Your task to perform on an android device: stop showing notifications on the lock screen Image 0: 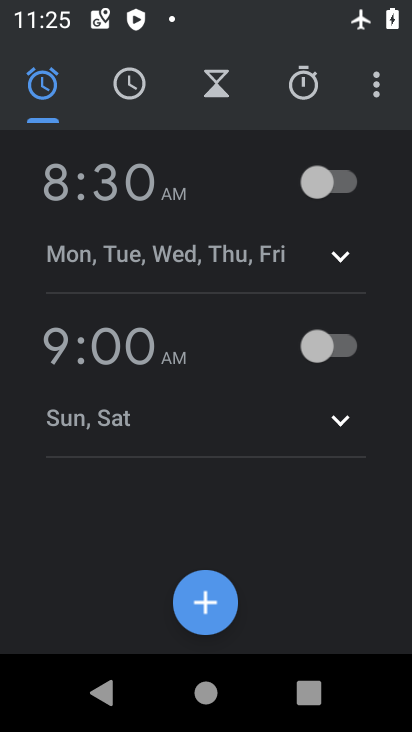
Step 0: press home button
Your task to perform on an android device: stop showing notifications on the lock screen Image 1: 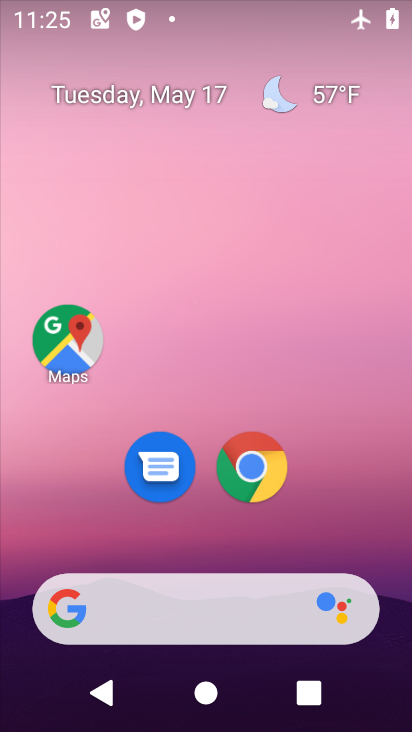
Step 1: drag from (261, 648) to (264, 239)
Your task to perform on an android device: stop showing notifications on the lock screen Image 2: 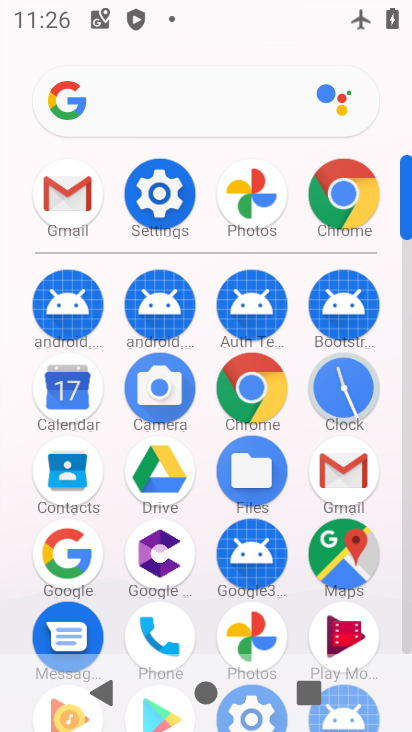
Step 2: click (162, 208)
Your task to perform on an android device: stop showing notifications on the lock screen Image 3: 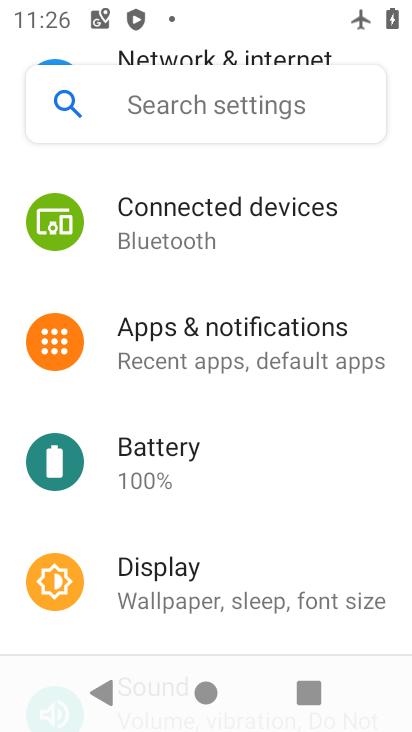
Step 3: click (200, 114)
Your task to perform on an android device: stop showing notifications on the lock screen Image 4: 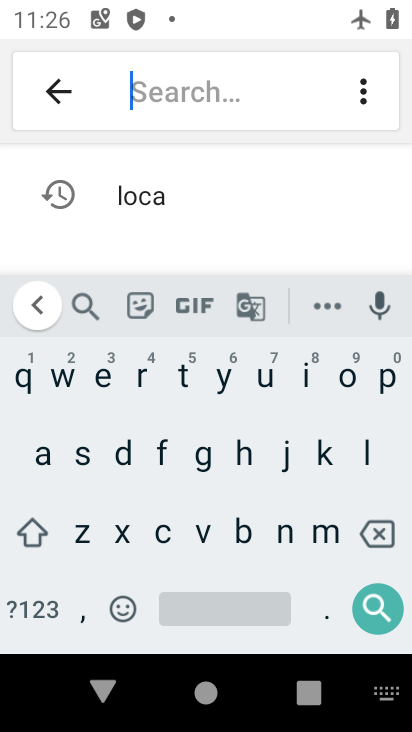
Step 4: click (282, 531)
Your task to perform on an android device: stop showing notifications on the lock screen Image 5: 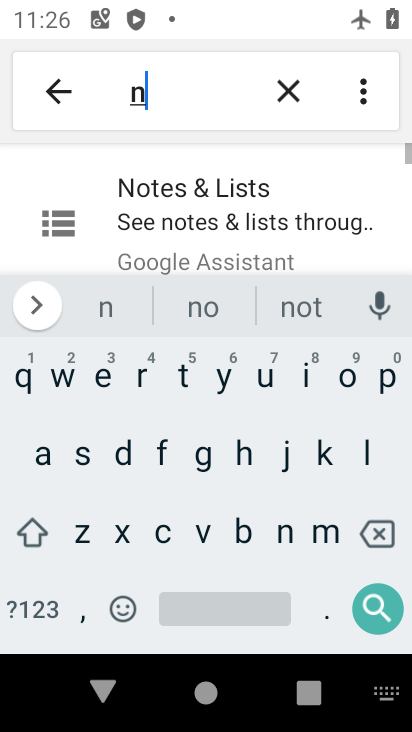
Step 5: click (336, 384)
Your task to perform on an android device: stop showing notifications on the lock screen Image 6: 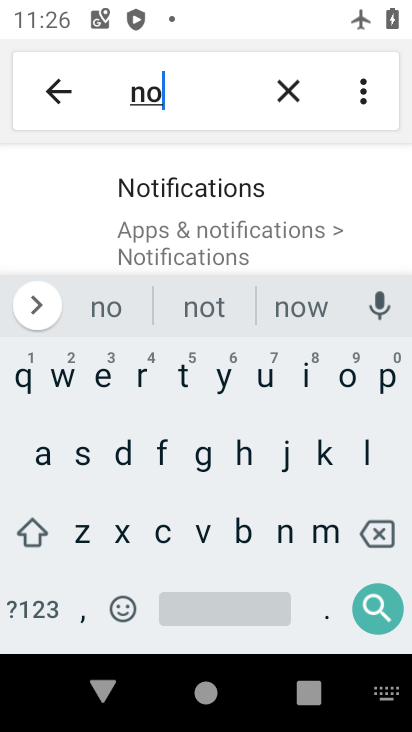
Step 6: click (277, 237)
Your task to perform on an android device: stop showing notifications on the lock screen Image 7: 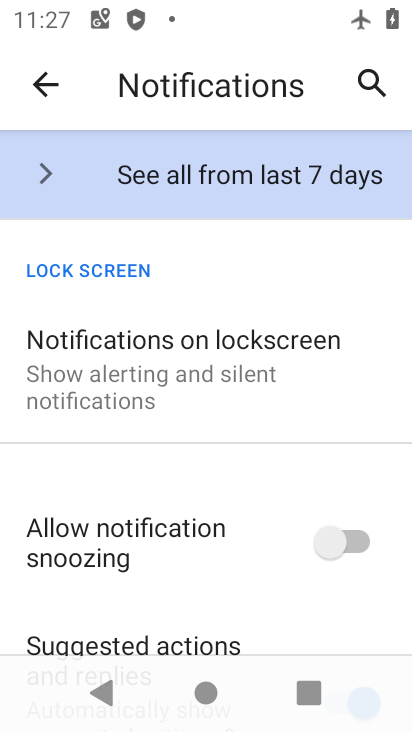
Step 7: click (163, 414)
Your task to perform on an android device: stop showing notifications on the lock screen Image 8: 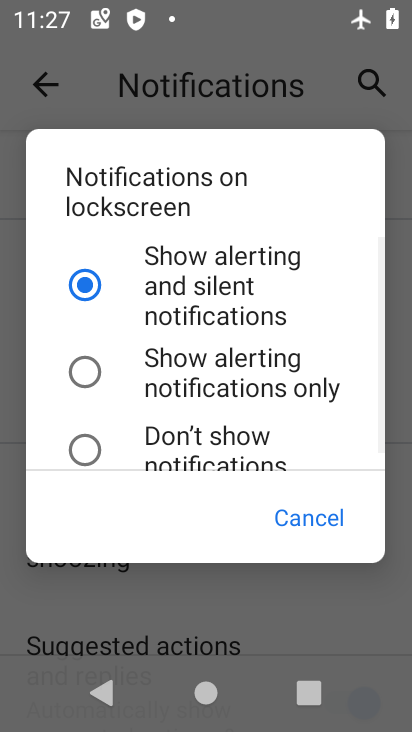
Step 8: click (178, 444)
Your task to perform on an android device: stop showing notifications on the lock screen Image 9: 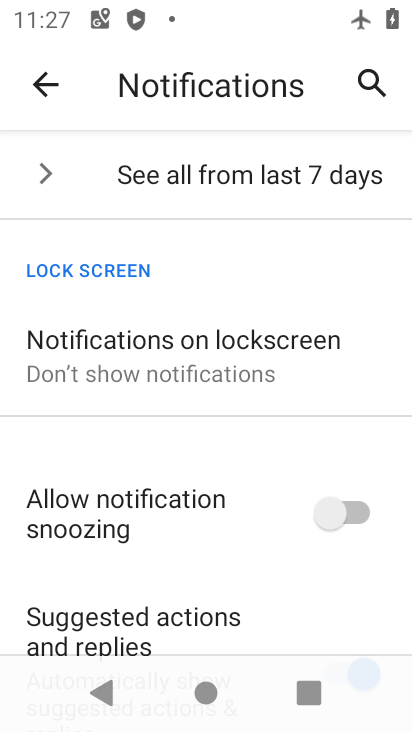
Step 9: task complete